Your task to perform on an android device: Open CNN.com Image 0: 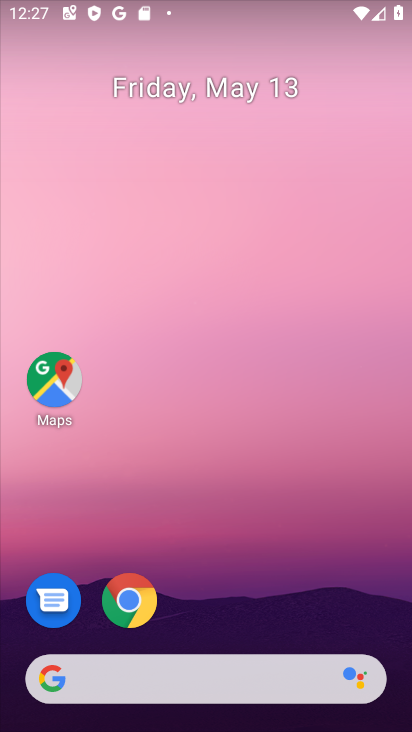
Step 0: drag from (266, 577) to (312, 151)
Your task to perform on an android device: Open CNN.com Image 1: 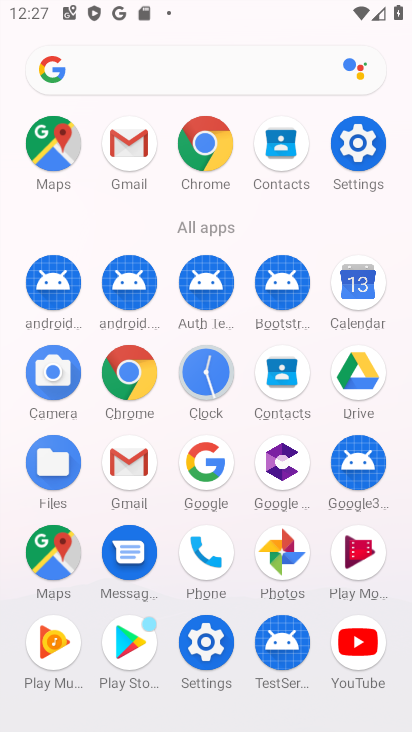
Step 1: click (187, 86)
Your task to perform on an android device: Open CNN.com Image 2: 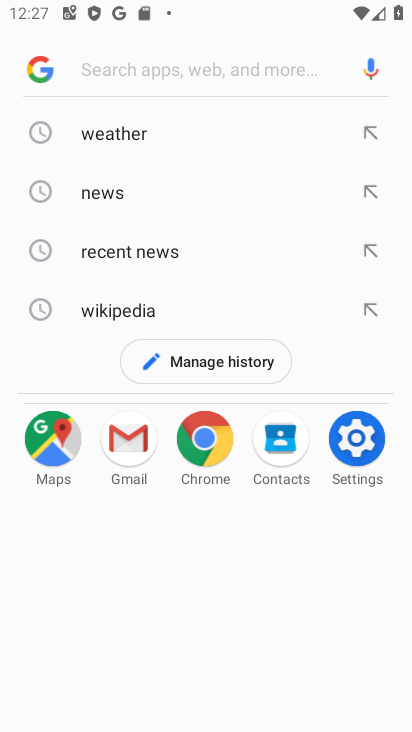
Step 2: type "cnn"
Your task to perform on an android device: Open CNN.com Image 3: 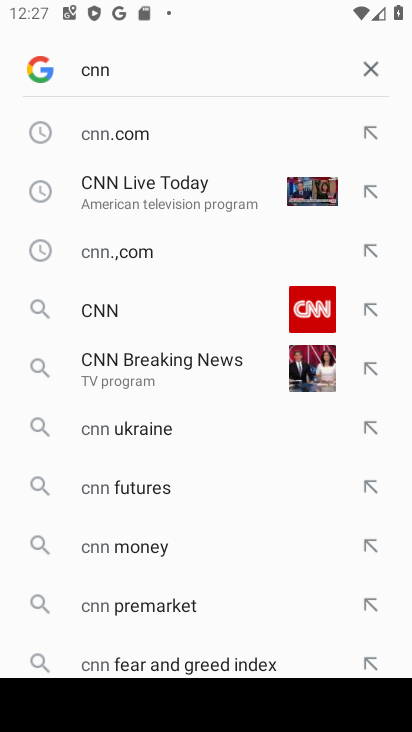
Step 3: click (153, 123)
Your task to perform on an android device: Open CNN.com Image 4: 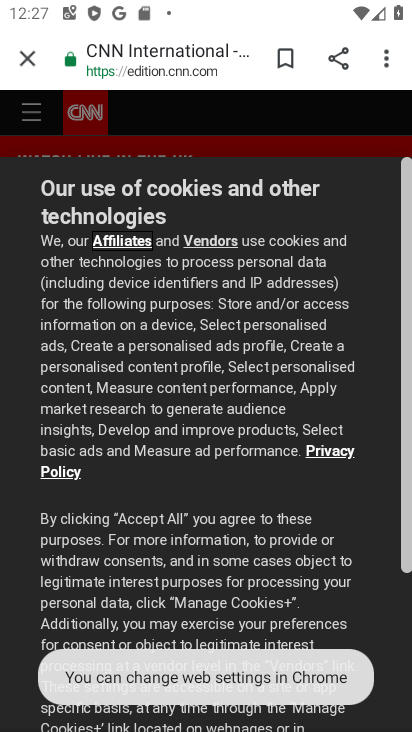
Step 4: task complete